Your task to perform on an android device: open app "Walmart Shopping & Grocery" Image 0: 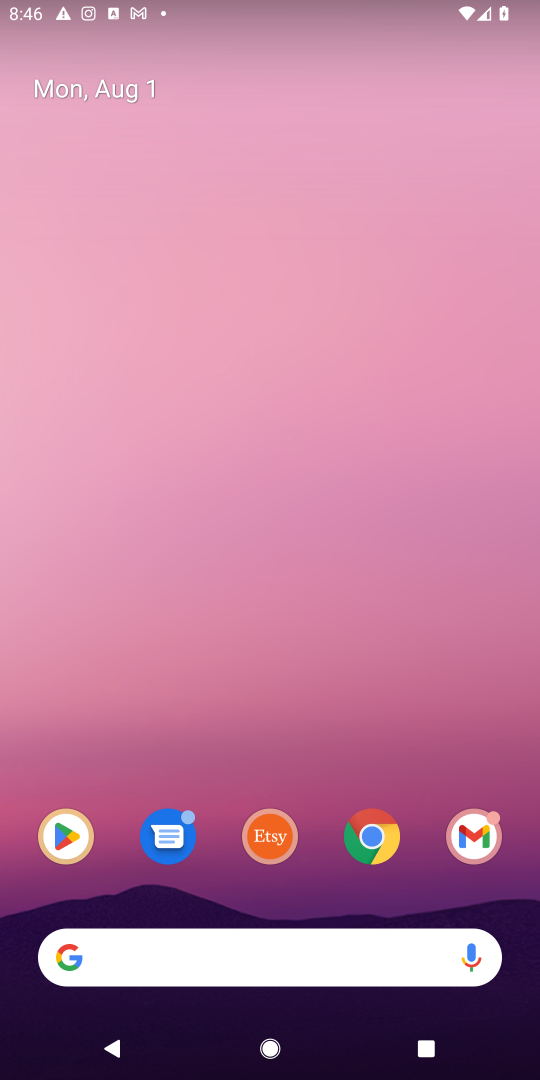
Step 0: press home button
Your task to perform on an android device: open app "Walmart Shopping & Grocery" Image 1: 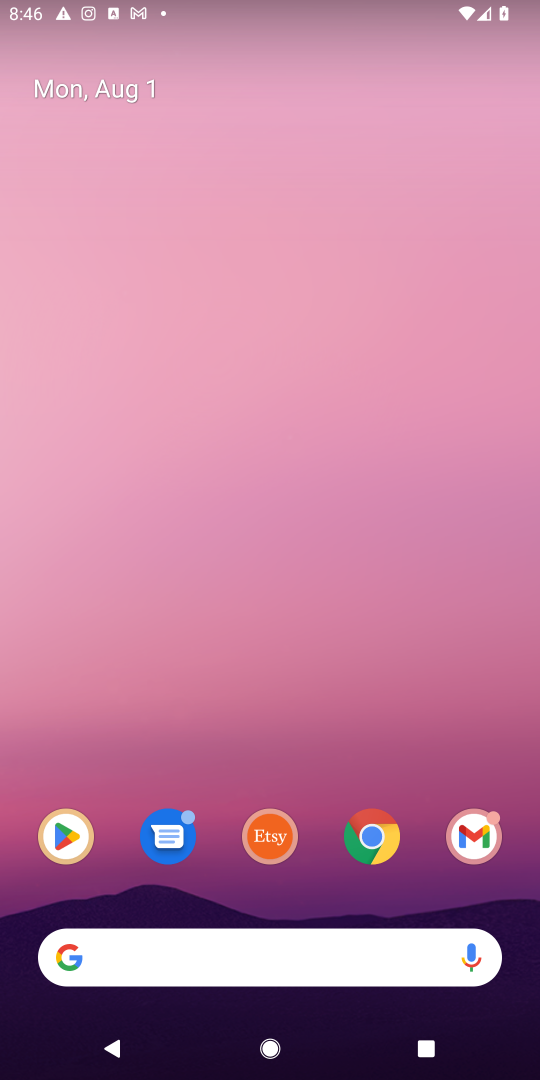
Step 1: click (75, 832)
Your task to perform on an android device: open app "Walmart Shopping & Grocery" Image 2: 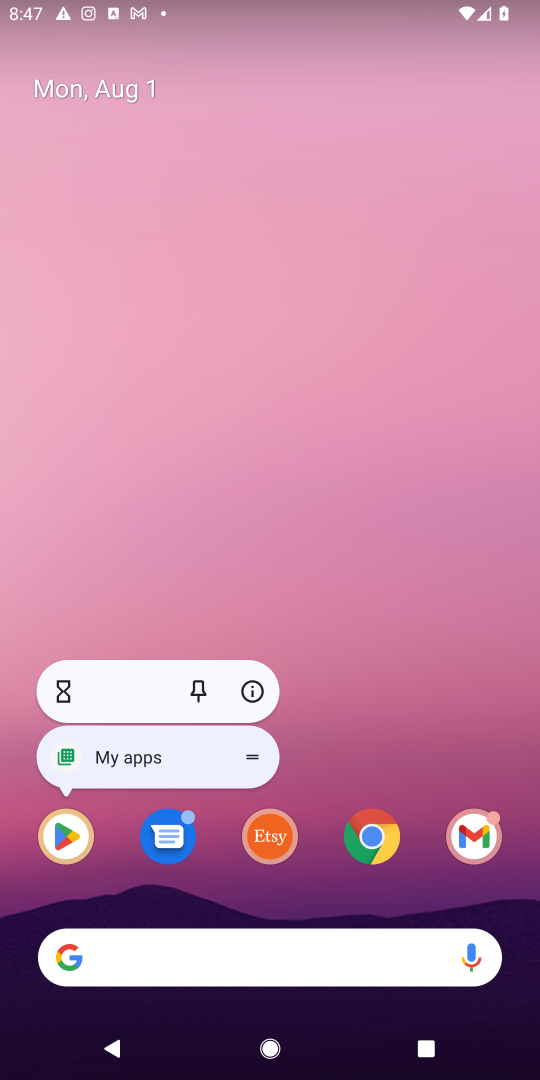
Step 2: click (74, 840)
Your task to perform on an android device: open app "Walmart Shopping & Grocery" Image 3: 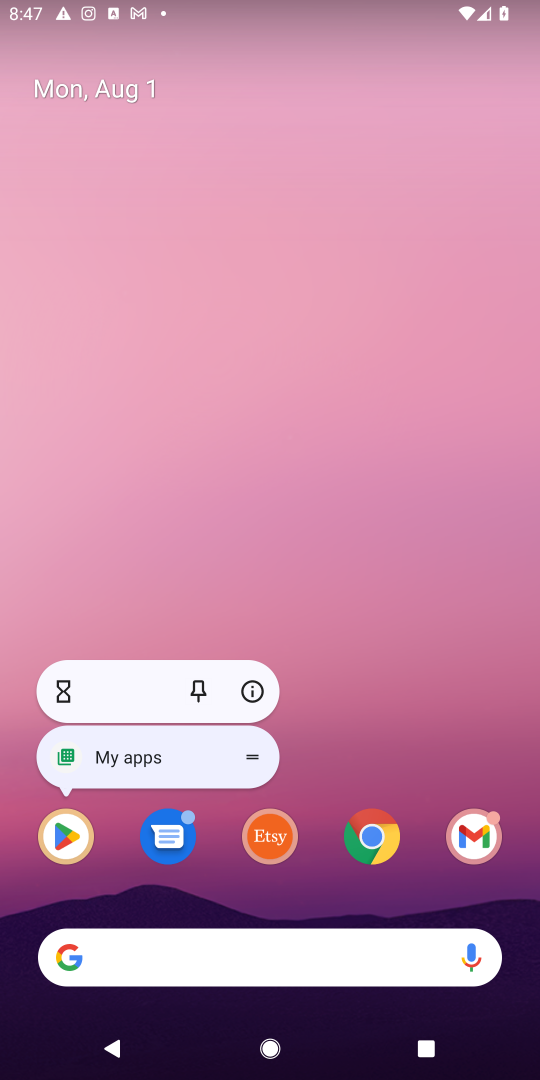
Step 3: click (62, 832)
Your task to perform on an android device: open app "Walmart Shopping & Grocery" Image 4: 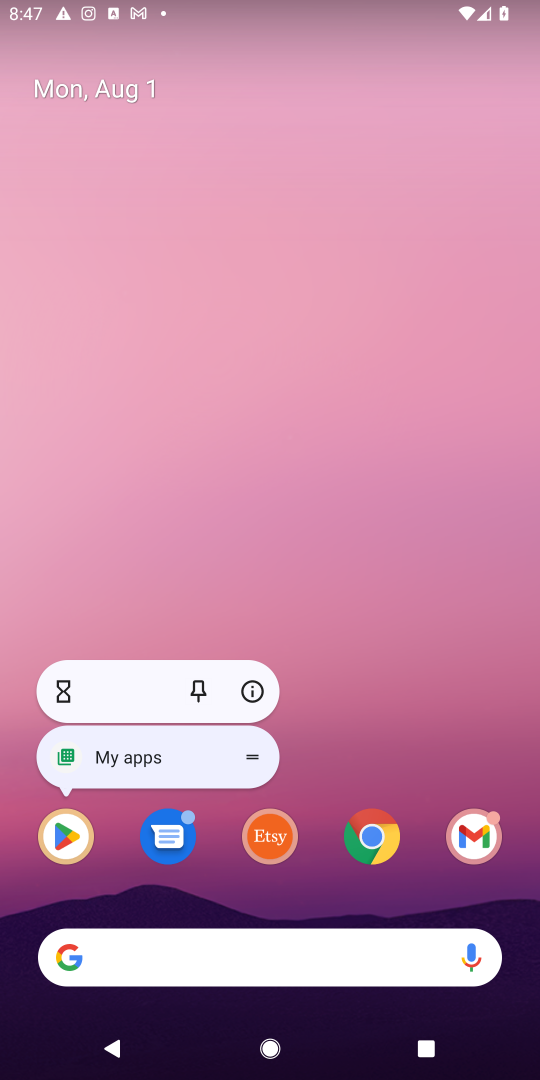
Step 4: click (69, 838)
Your task to perform on an android device: open app "Walmart Shopping & Grocery" Image 5: 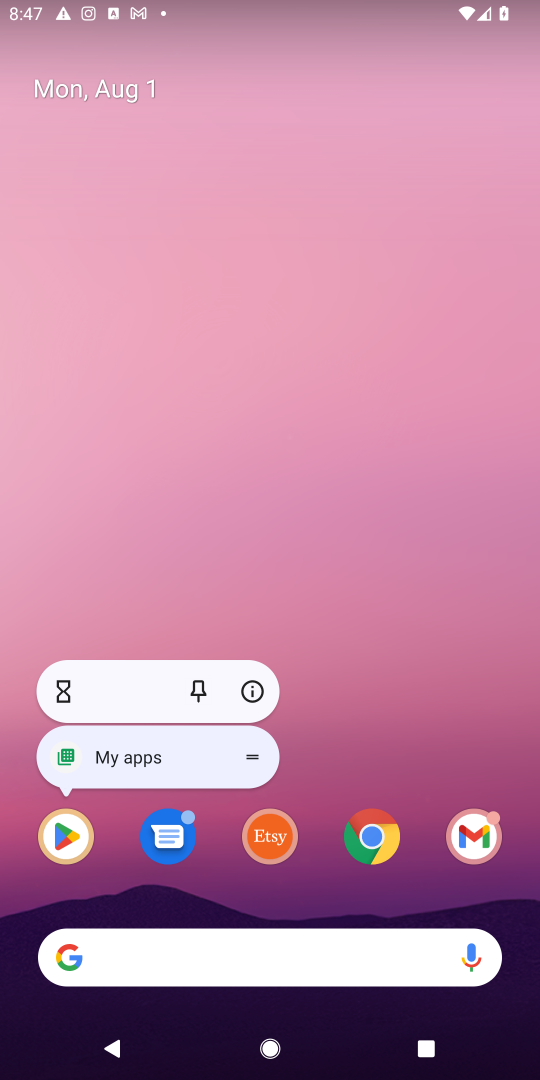
Step 5: click (66, 838)
Your task to perform on an android device: open app "Walmart Shopping & Grocery" Image 6: 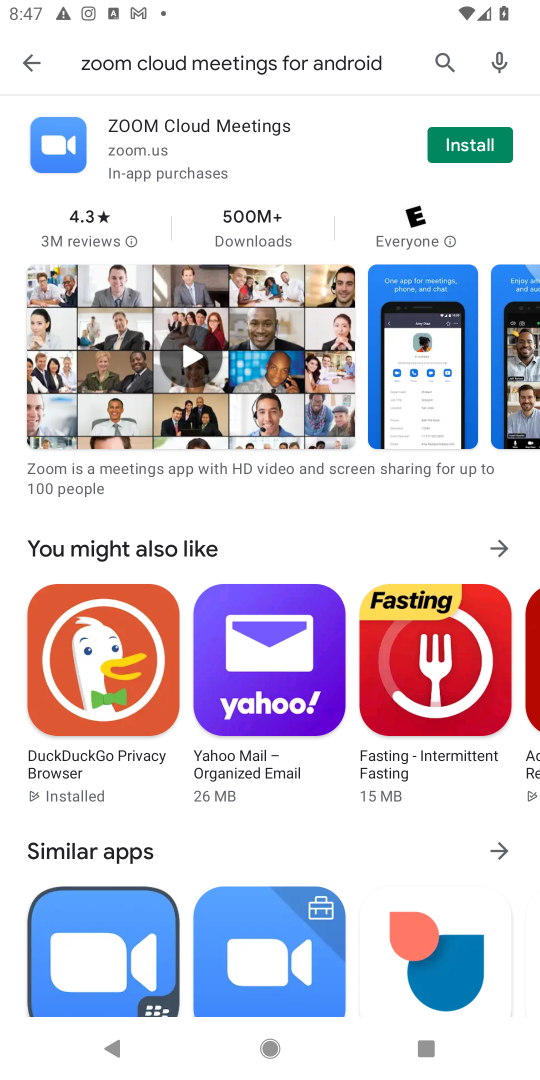
Step 6: click (443, 54)
Your task to perform on an android device: open app "Walmart Shopping & Grocery" Image 7: 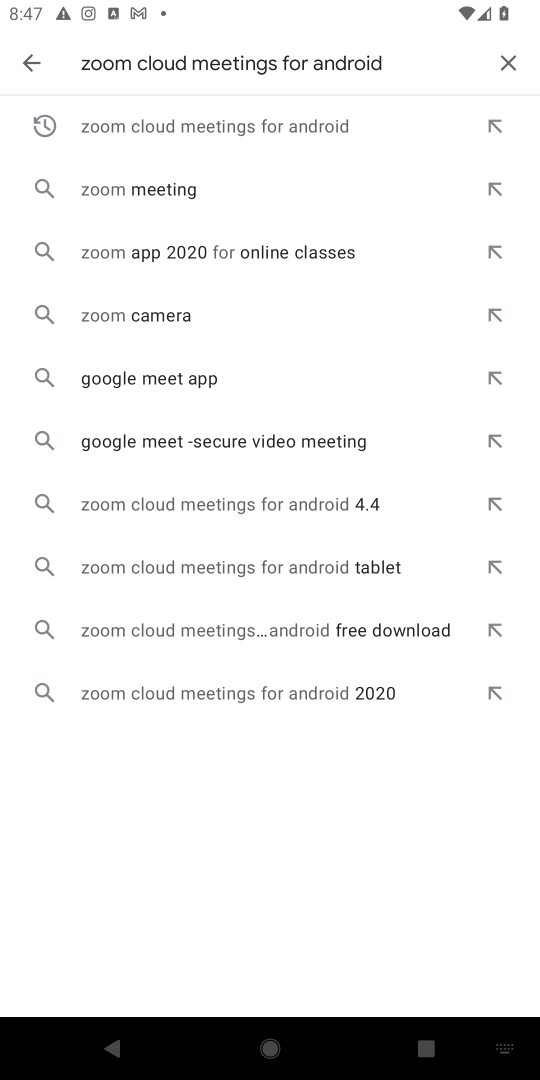
Step 7: click (497, 63)
Your task to perform on an android device: open app "Walmart Shopping & Grocery" Image 8: 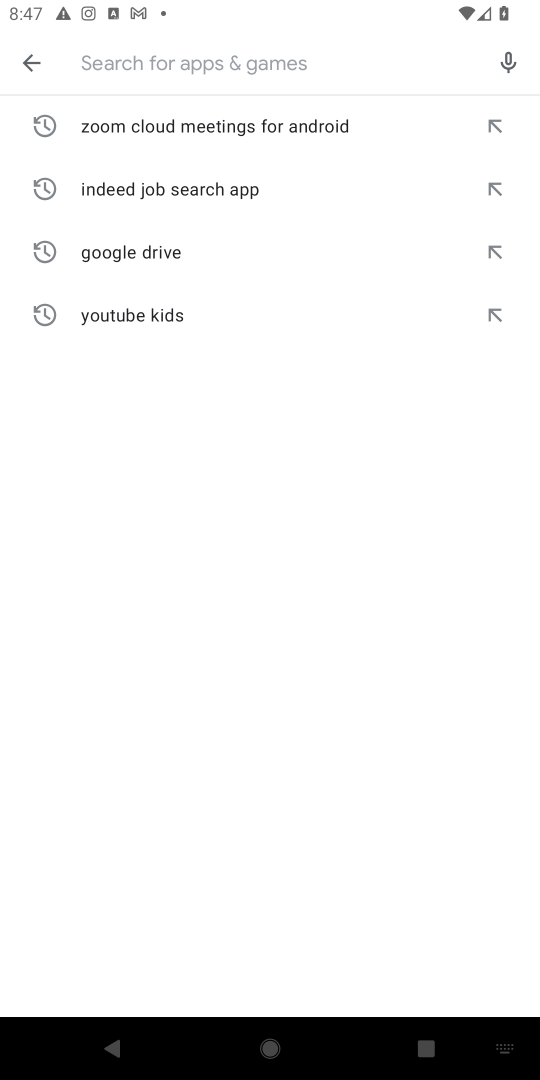
Step 8: type "Walmart Shopping & Grocery"
Your task to perform on an android device: open app "Walmart Shopping & Grocery" Image 9: 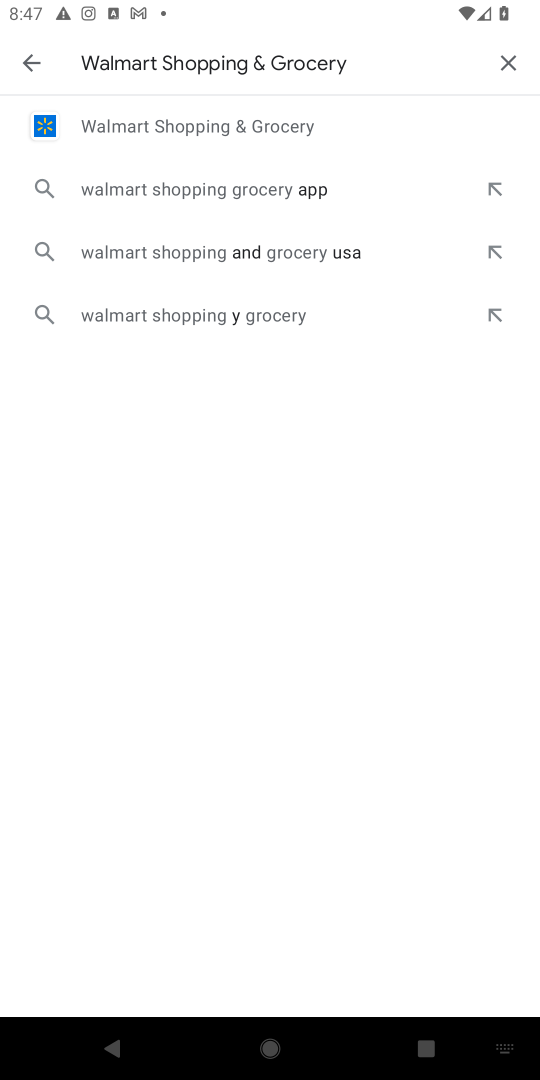
Step 9: click (181, 126)
Your task to perform on an android device: open app "Walmart Shopping & Grocery" Image 10: 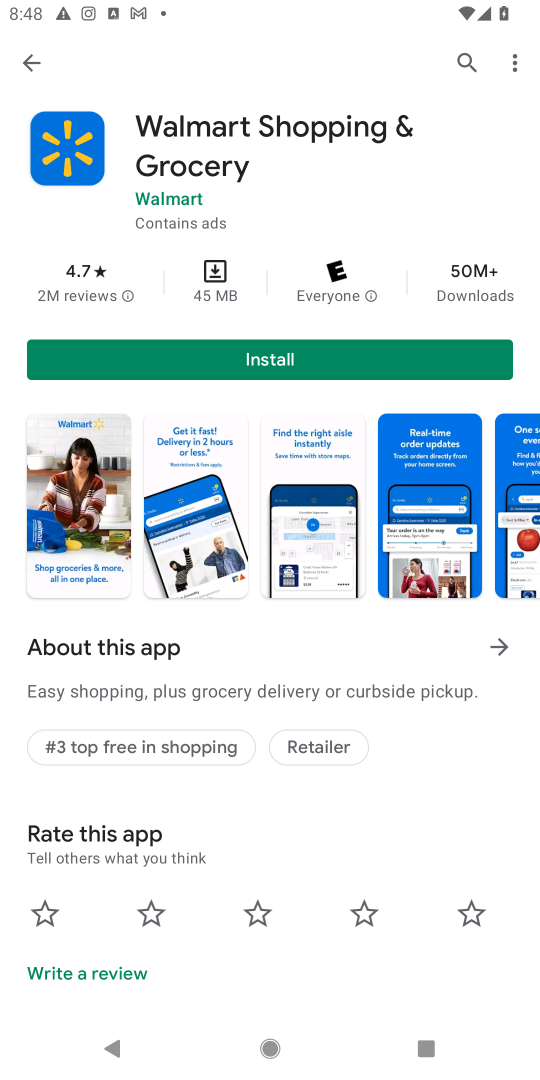
Step 10: task complete